Your task to perform on an android device: Go to Yahoo.com Image 0: 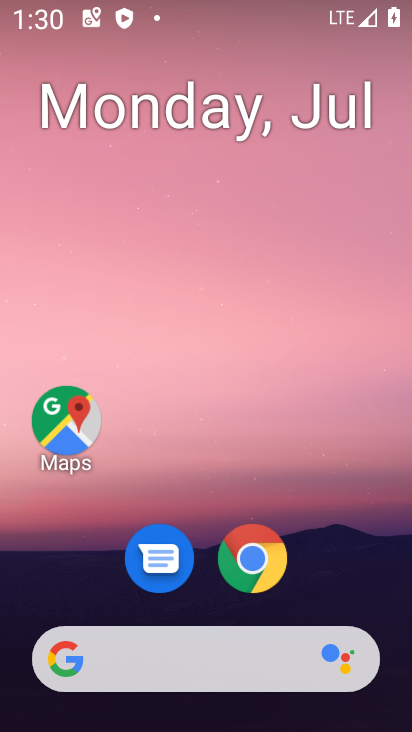
Step 0: drag from (354, 556) to (359, 63)
Your task to perform on an android device: Go to Yahoo.com Image 1: 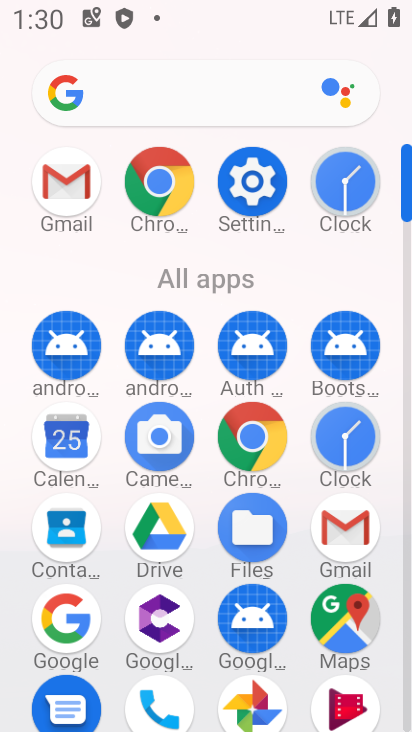
Step 1: click (262, 435)
Your task to perform on an android device: Go to Yahoo.com Image 2: 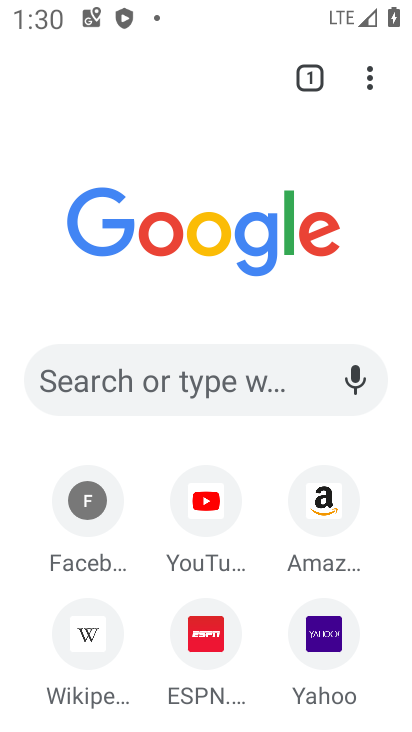
Step 2: click (253, 377)
Your task to perform on an android device: Go to Yahoo.com Image 3: 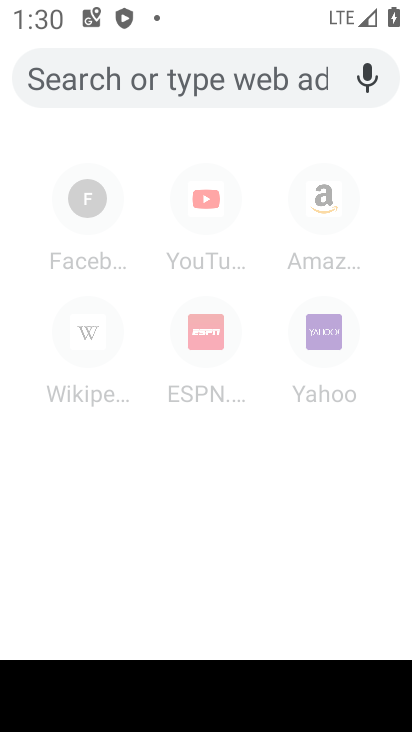
Step 3: type "yahoo.com"
Your task to perform on an android device: Go to Yahoo.com Image 4: 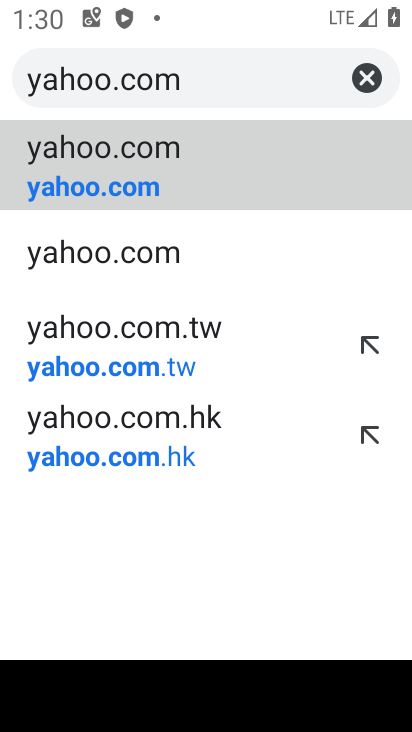
Step 4: click (145, 165)
Your task to perform on an android device: Go to Yahoo.com Image 5: 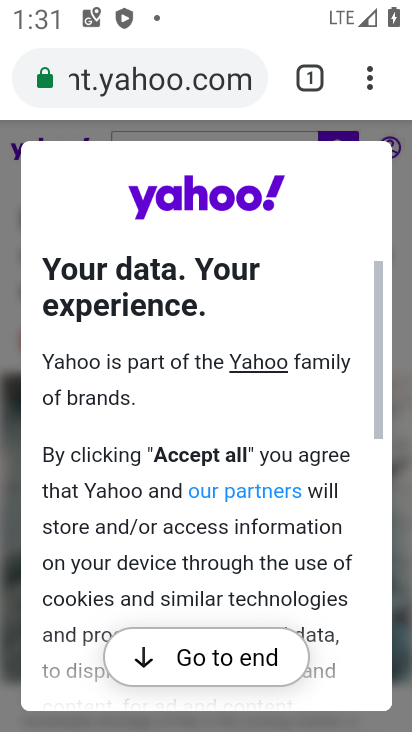
Step 5: task complete